Your task to perform on an android device: Install the Instagram app Image 0: 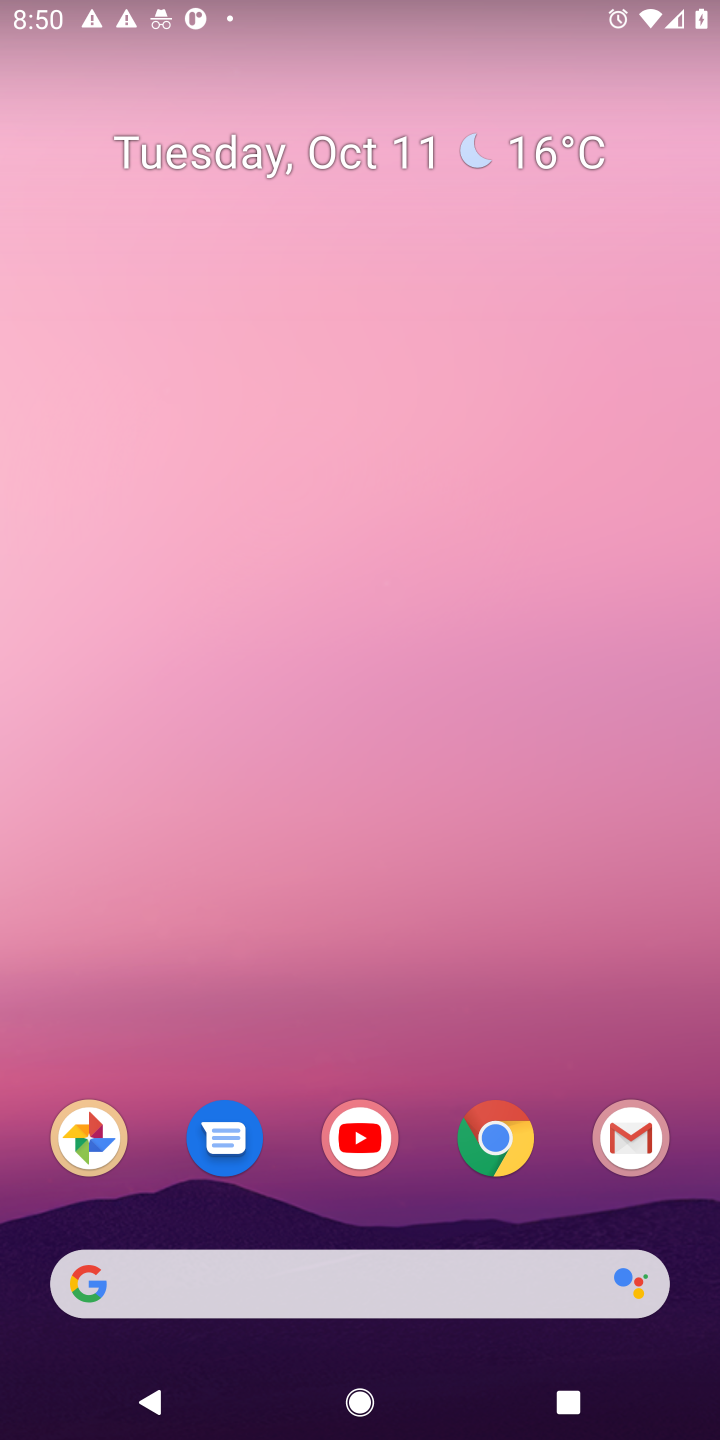
Step 0: drag from (443, 1046) to (404, 222)
Your task to perform on an android device: Install the Instagram app Image 1: 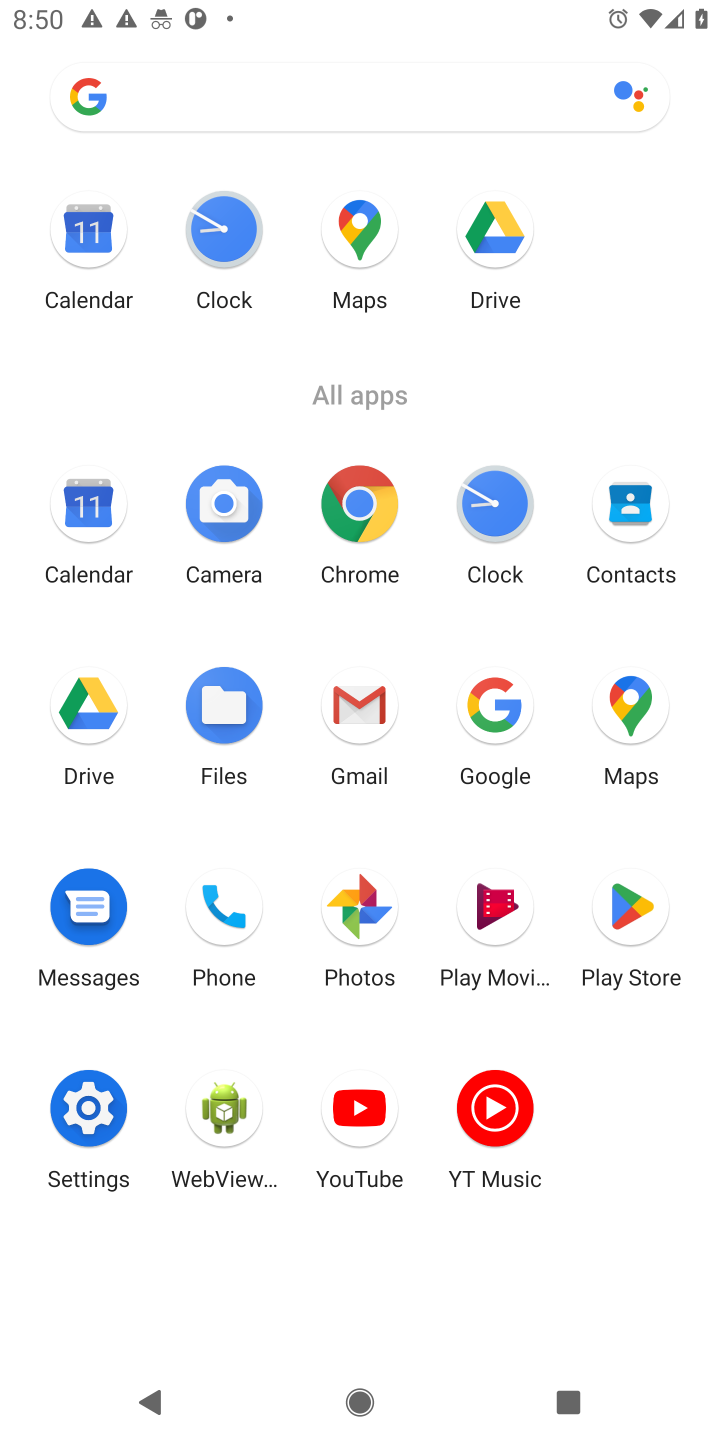
Step 1: click (616, 891)
Your task to perform on an android device: Install the Instagram app Image 2: 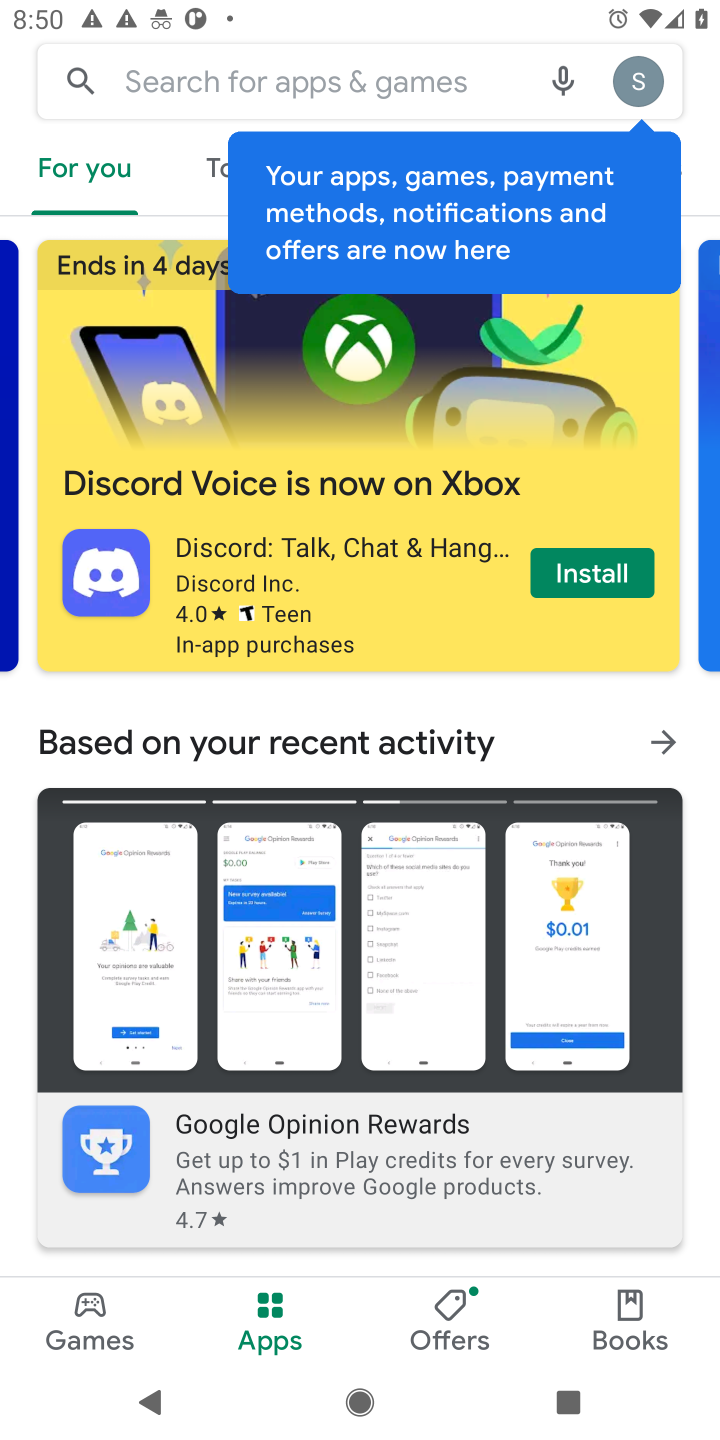
Step 2: click (201, 81)
Your task to perform on an android device: Install the Instagram app Image 3: 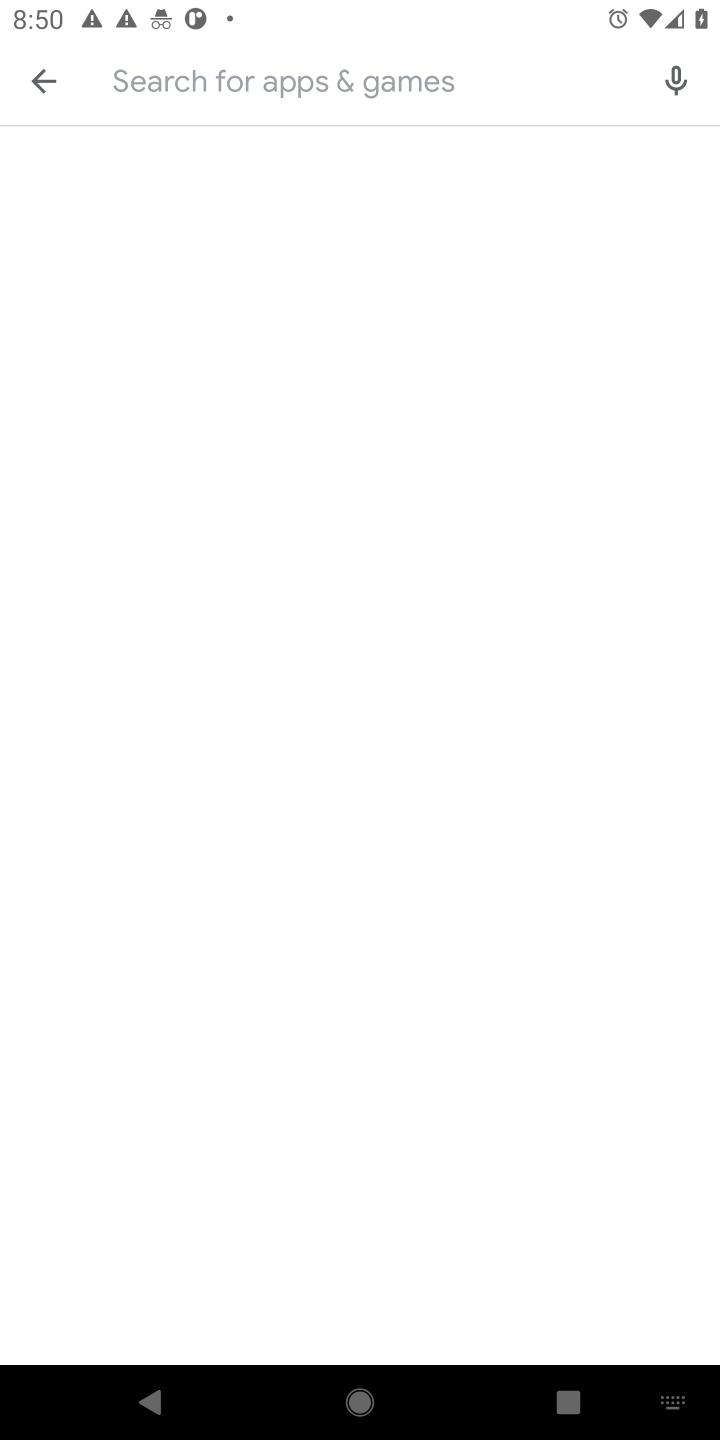
Step 3: type "instagram"
Your task to perform on an android device: Install the Instagram app Image 4: 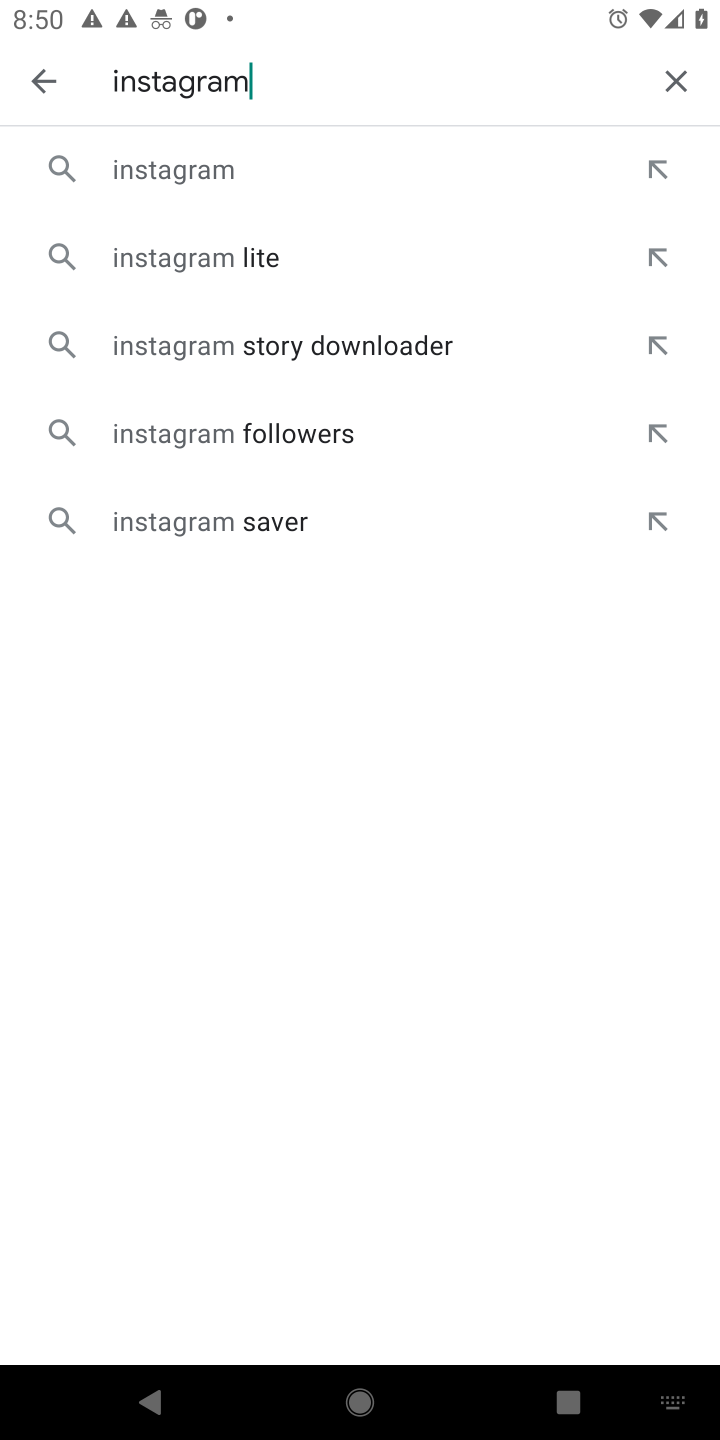
Step 4: click (214, 167)
Your task to perform on an android device: Install the Instagram app Image 5: 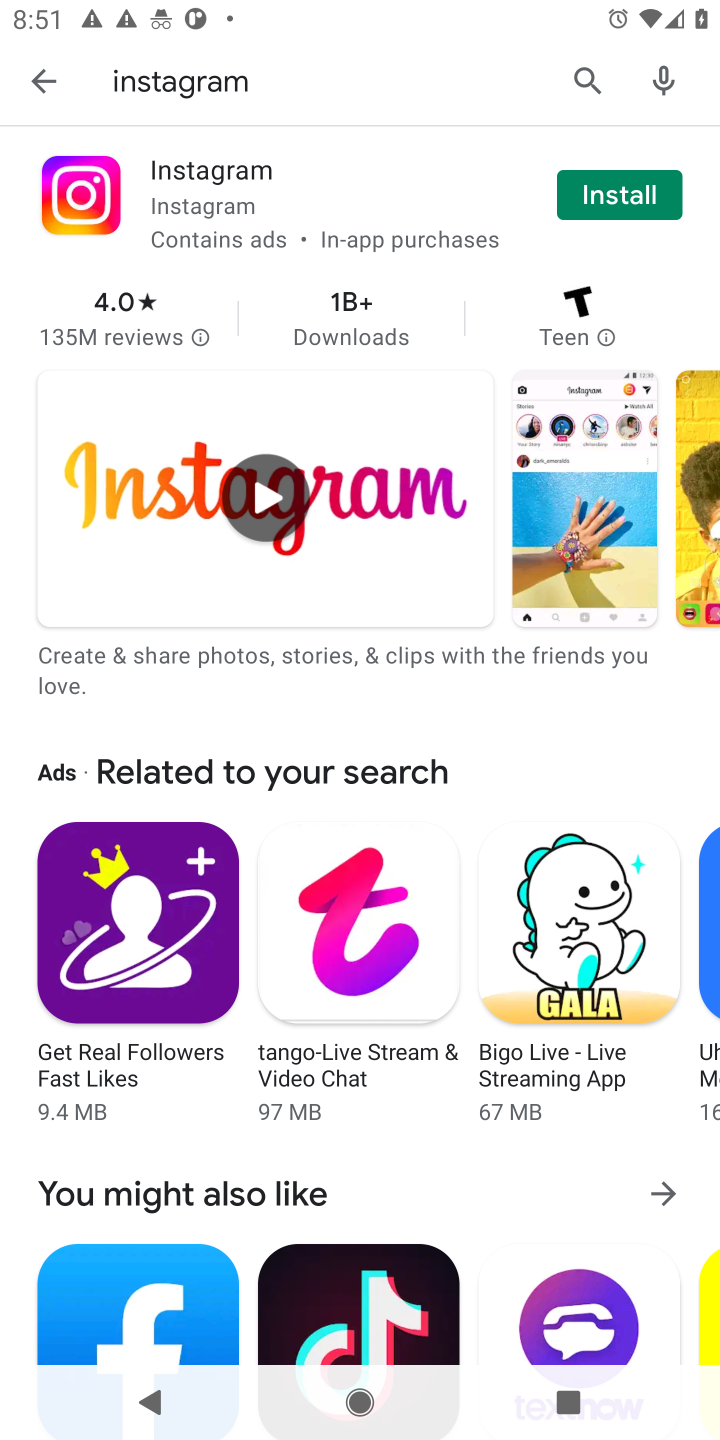
Step 5: click (607, 203)
Your task to perform on an android device: Install the Instagram app Image 6: 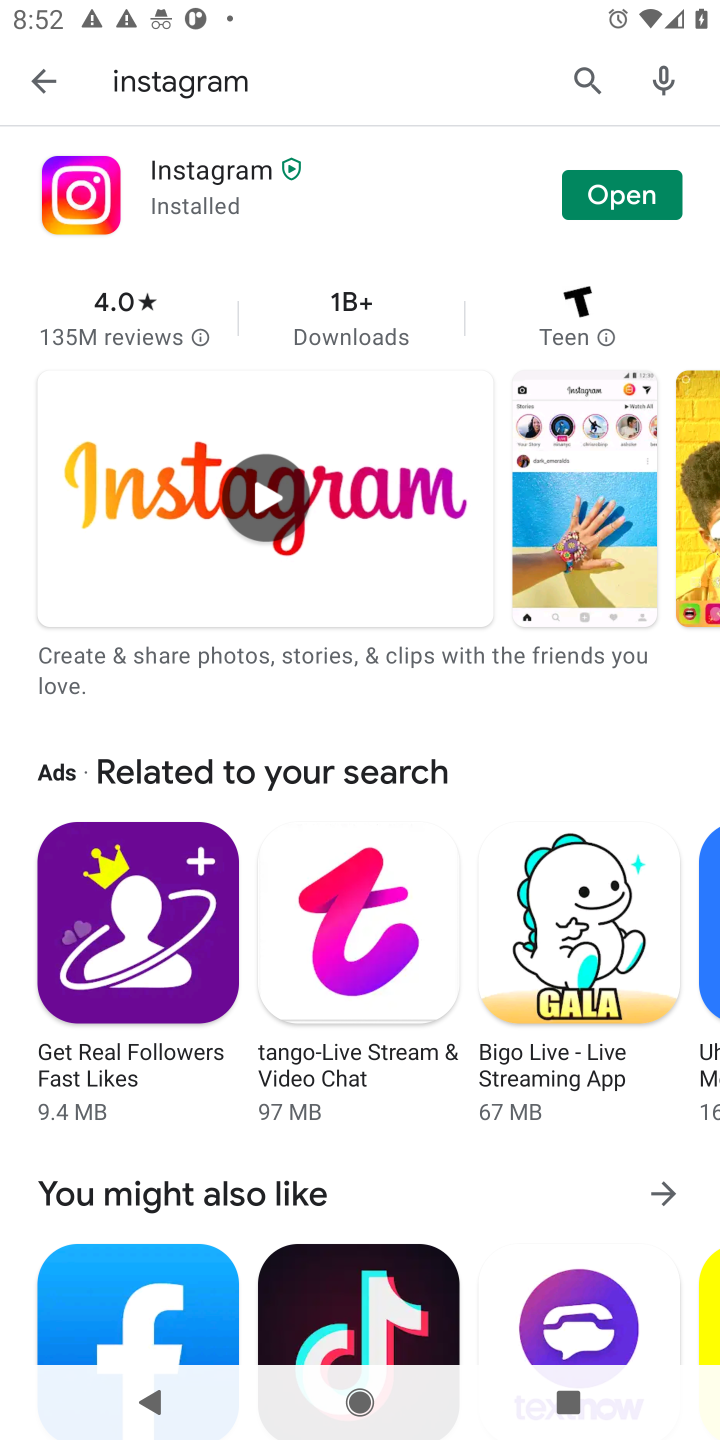
Step 6: task complete